Your task to perform on an android device: change the clock display to digital Image 0: 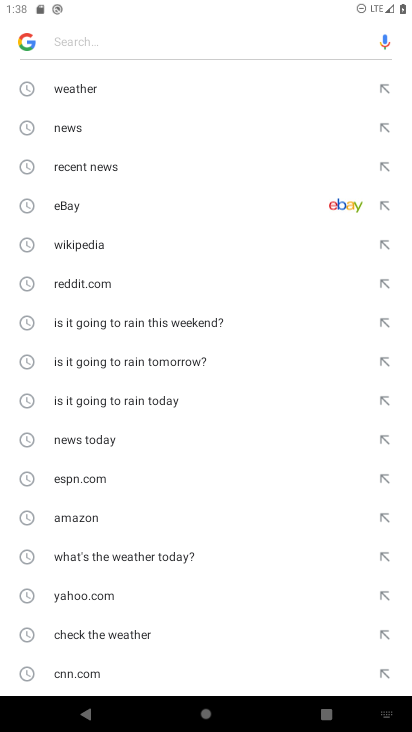
Step 0: press home button
Your task to perform on an android device: change the clock display to digital Image 1: 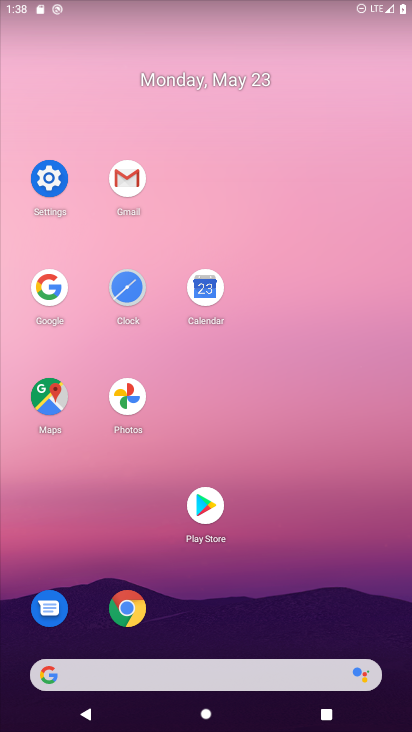
Step 1: click (133, 282)
Your task to perform on an android device: change the clock display to digital Image 2: 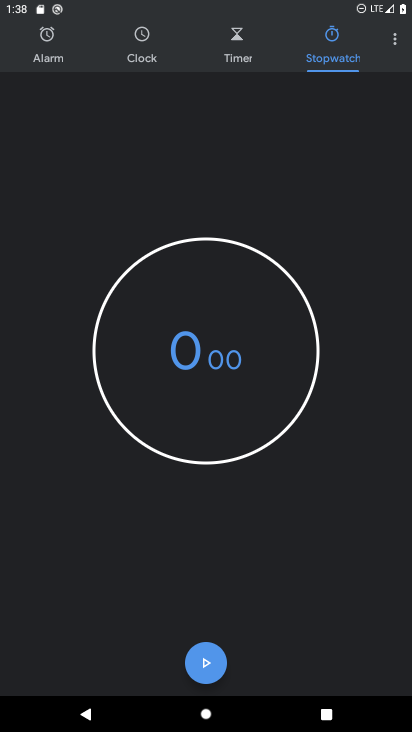
Step 2: click (385, 44)
Your task to perform on an android device: change the clock display to digital Image 3: 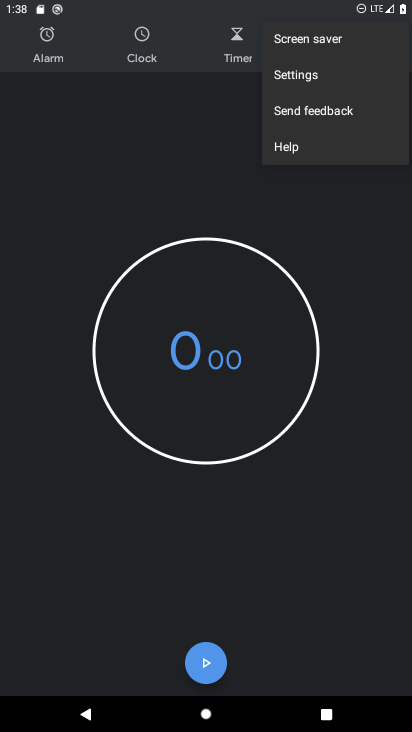
Step 3: click (319, 72)
Your task to perform on an android device: change the clock display to digital Image 4: 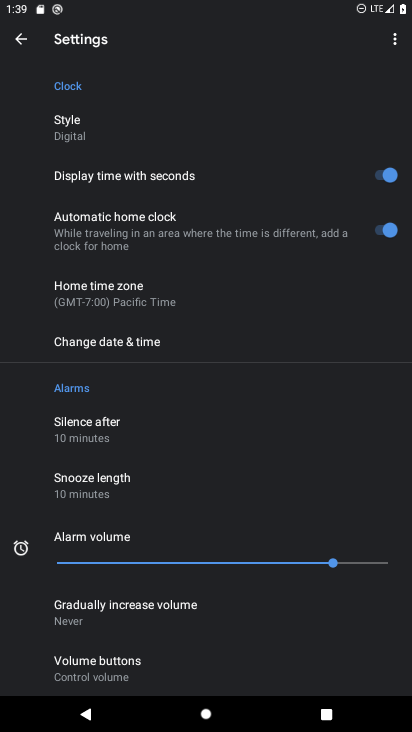
Step 4: task complete